Your task to perform on an android device: When is my next appointment? Image 0: 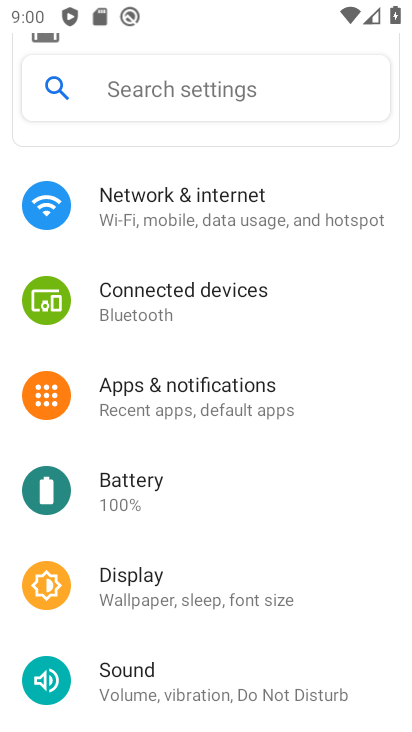
Step 0: press home button
Your task to perform on an android device: When is my next appointment? Image 1: 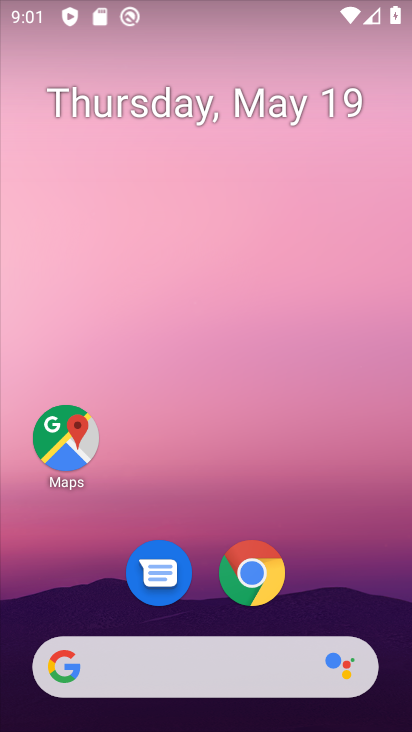
Step 1: drag from (210, 607) to (215, 220)
Your task to perform on an android device: When is my next appointment? Image 2: 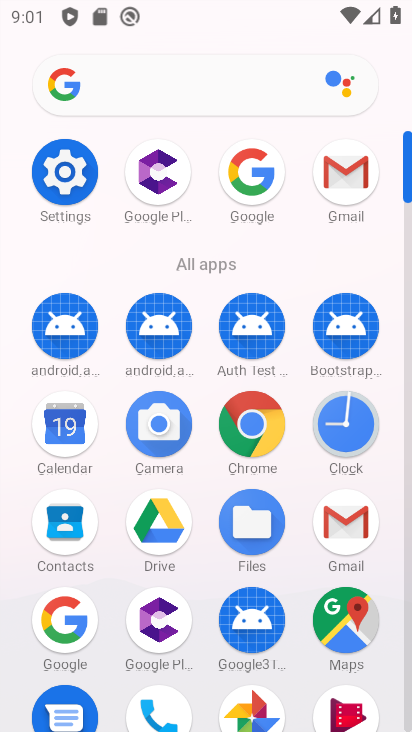
Step 2: click (68, 434)
Your task to perform on an android device: When is my next appointment? Image 3: 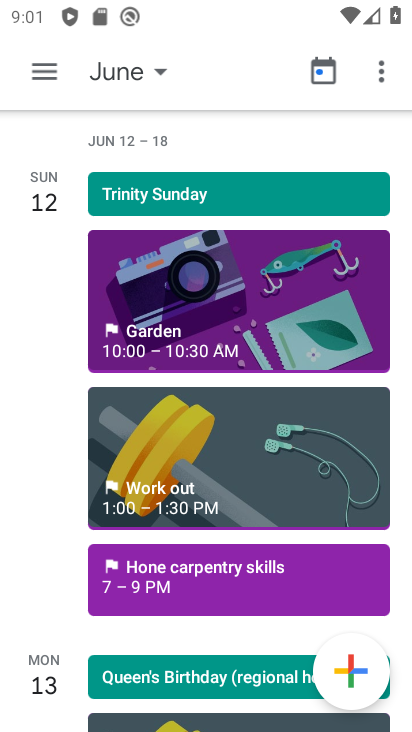
Step 3: task complete